Your task to perform on an android device: set the timer Image 0: 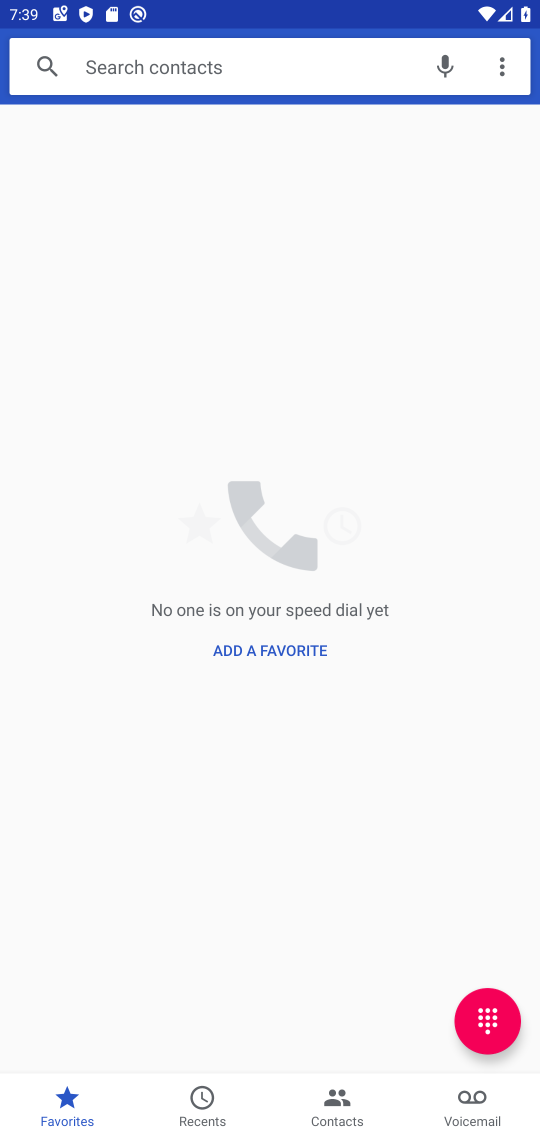
Step 0: press home button
Your task to perform on an android device: set the timer Image 1: 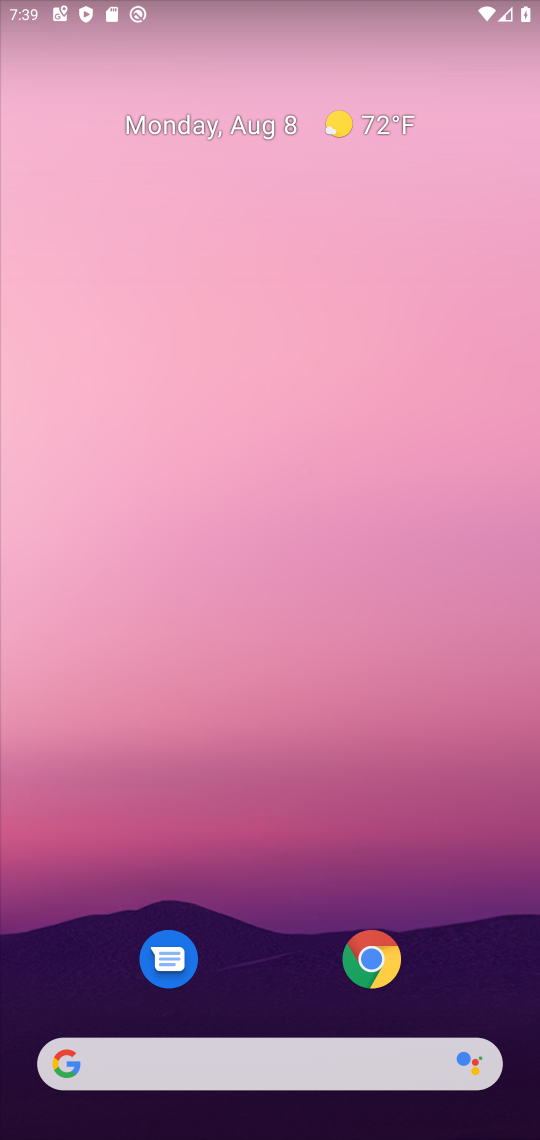
Step 1: drag from (476, 875) to (290, 157)
Your task to perform on an android device: set the timer Image 2: 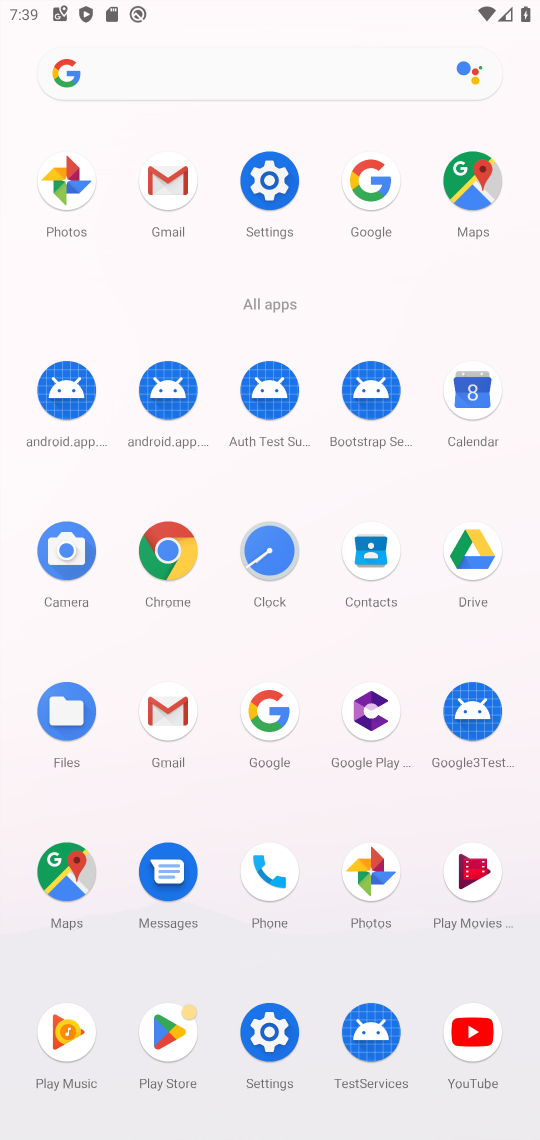
Step 2: click (245, 554)
Your task to perform on an android device: set the timer Image 3: 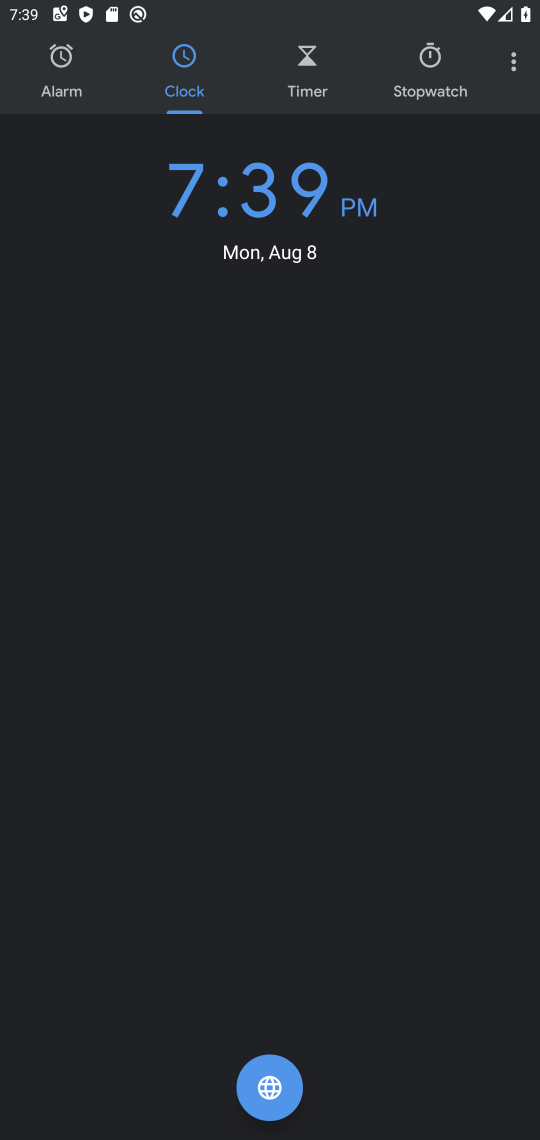
Step 3: click (305, 64)
Your task to perform on an android device: set the timer Image 4: 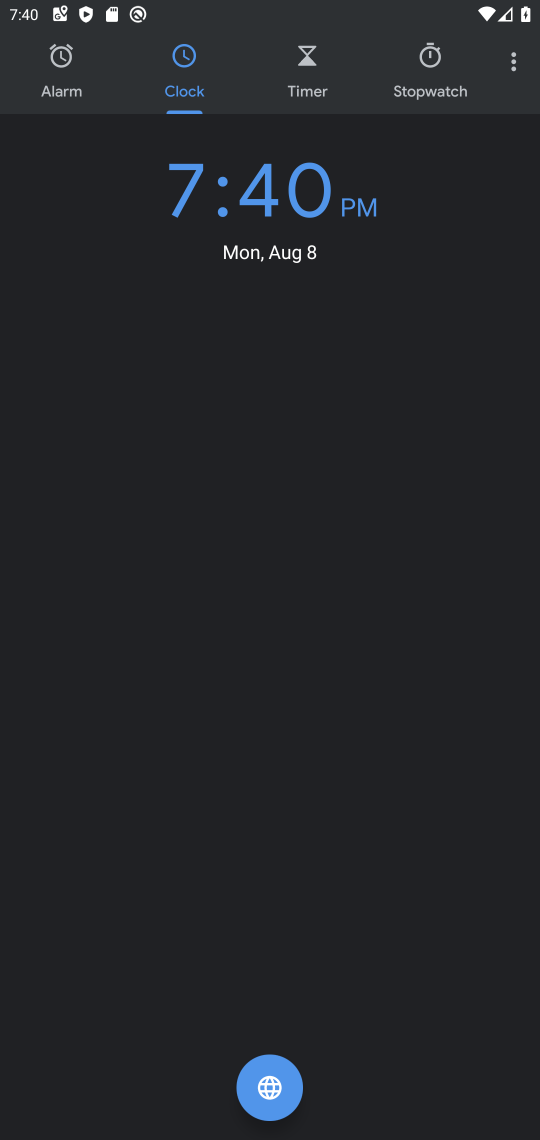
Step 4: click (312, 67)
Your task to perform on an android device: set the timer Image 5: 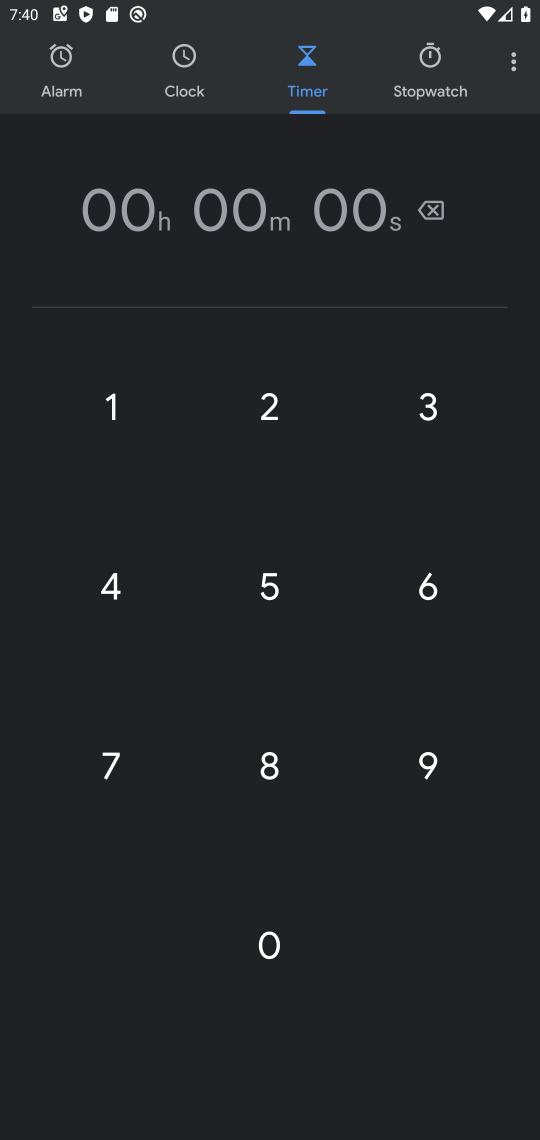
Step 5: click (110, 412)
Your task to perform on an android device: set the timer Image 6: 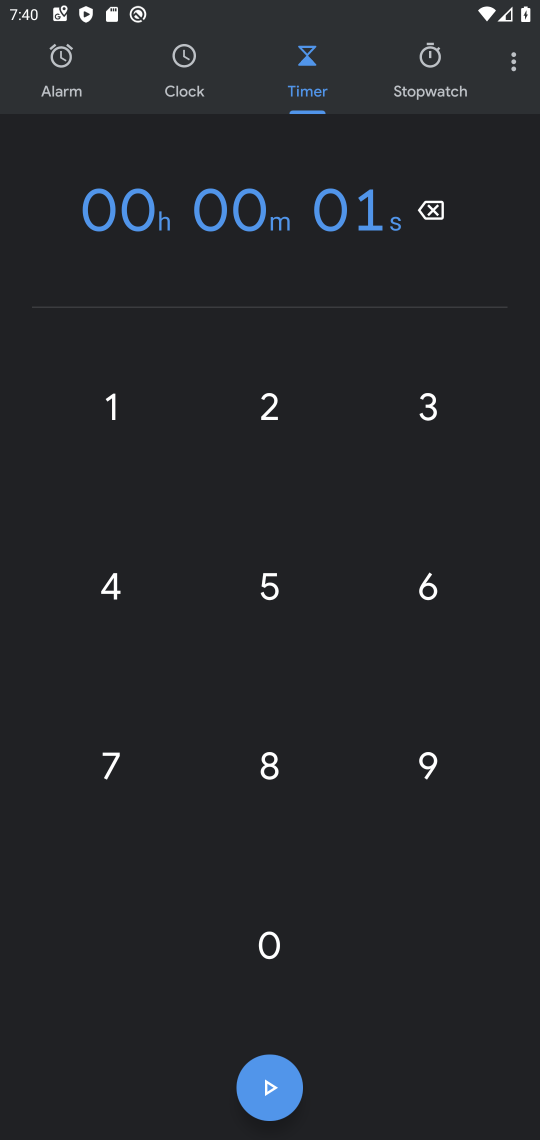
Step 6: click (110, 412)
Your task to perform on an android device: set the timer Image 7: 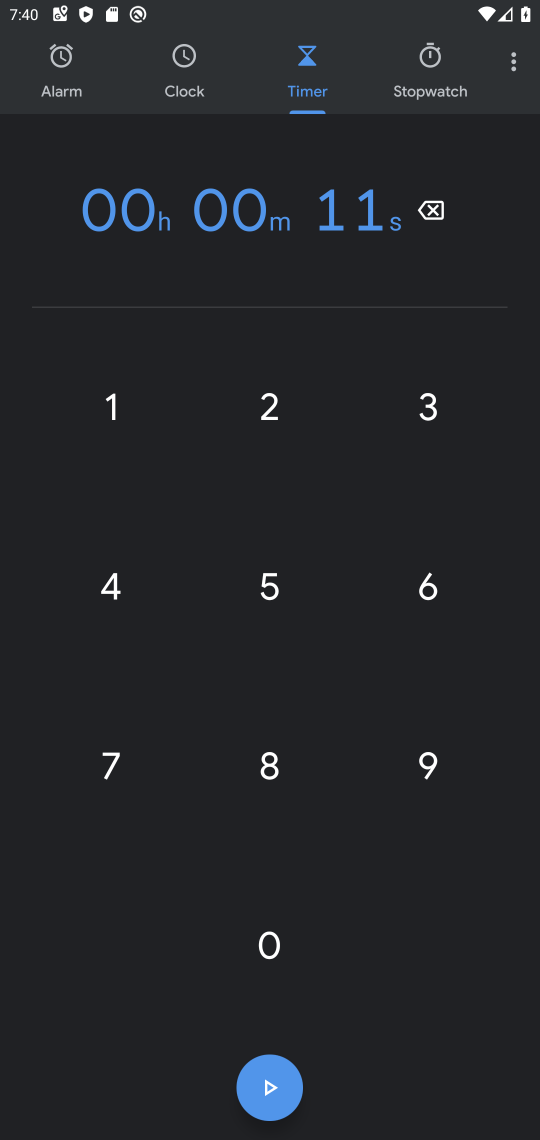
Step 7: click (110, 412)
Your task to perform on an android device: set the timer Image 8: 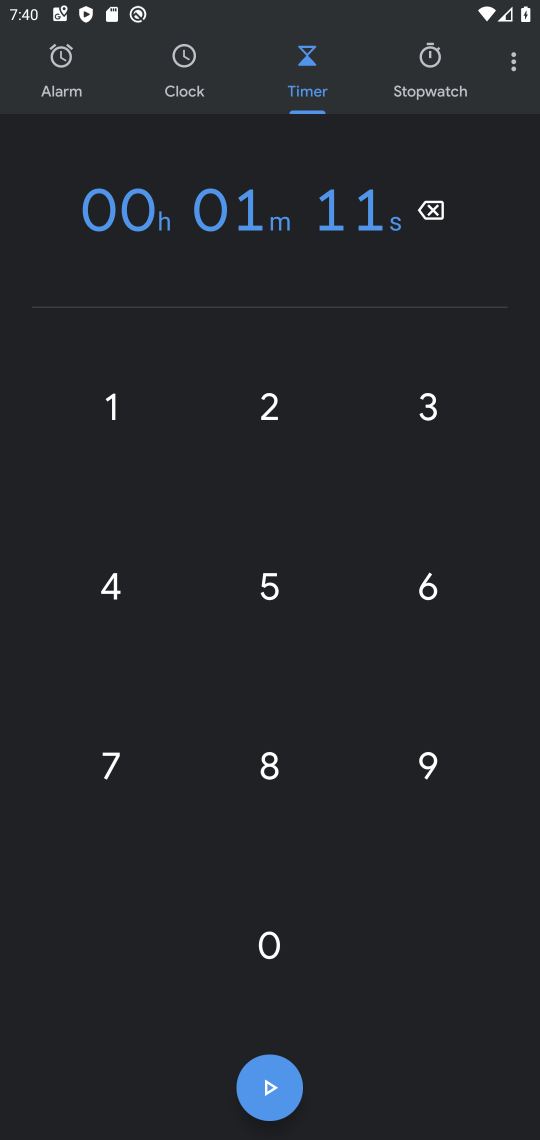
Step 8: click (110, 412)
Your task to perform on an android device: set the timer Image 9: 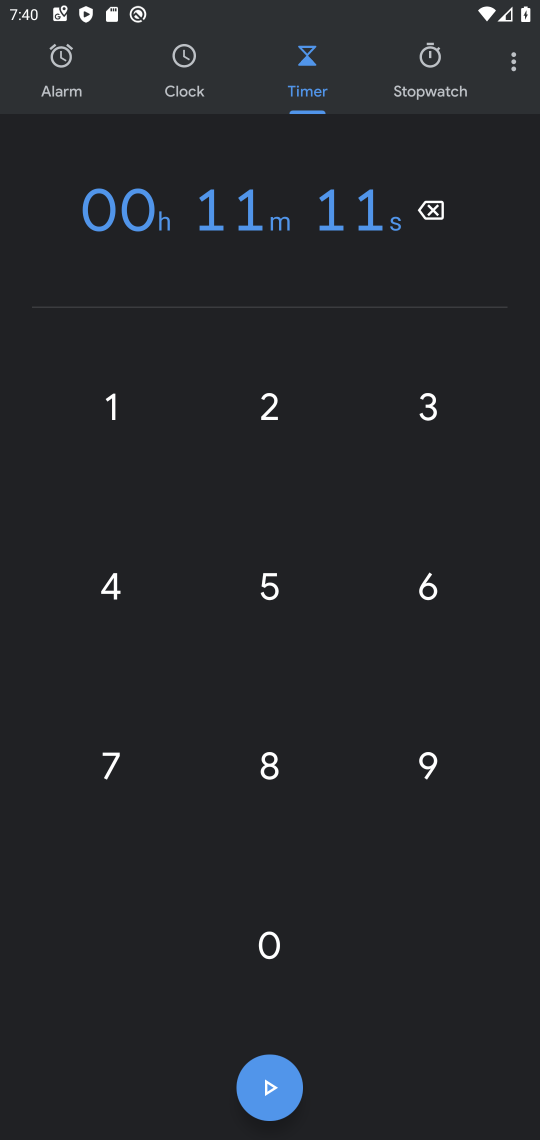
Step 9: click (110, 412)
Your task to perform on an android device: set the timer Image 10: 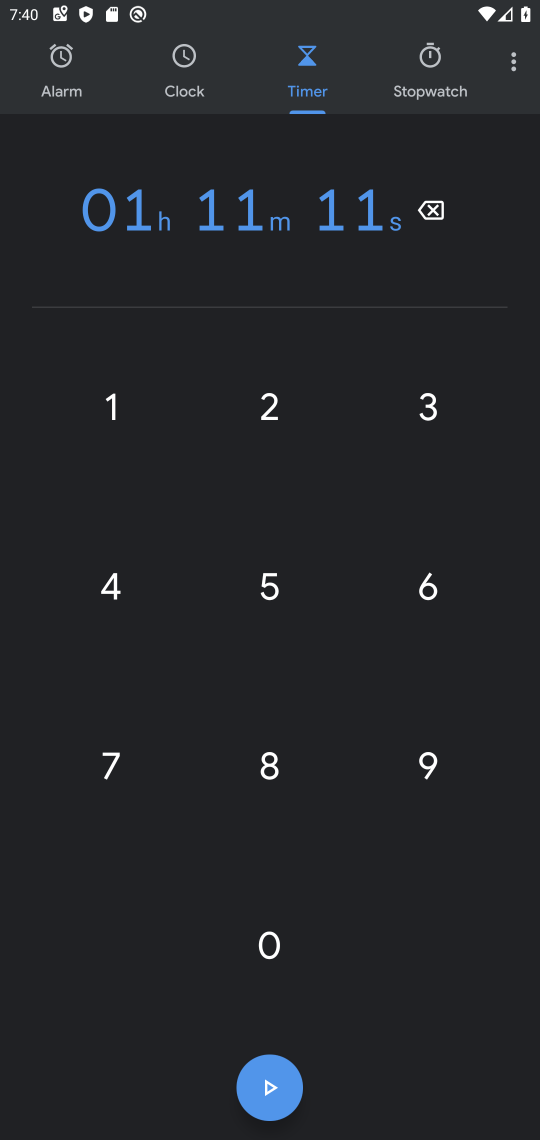
Step 10: task complete